Your task to perform on an android device: turn off improve location accuracy Image 0: 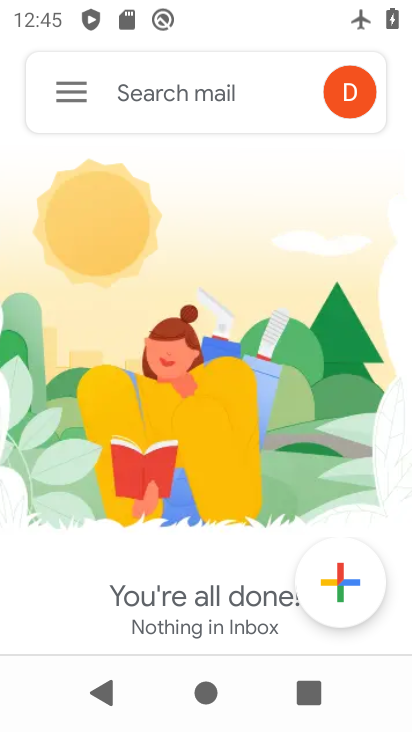
Step 0: press home button
Your task to perform on an android device: turn off improve location accuracy Image 1: 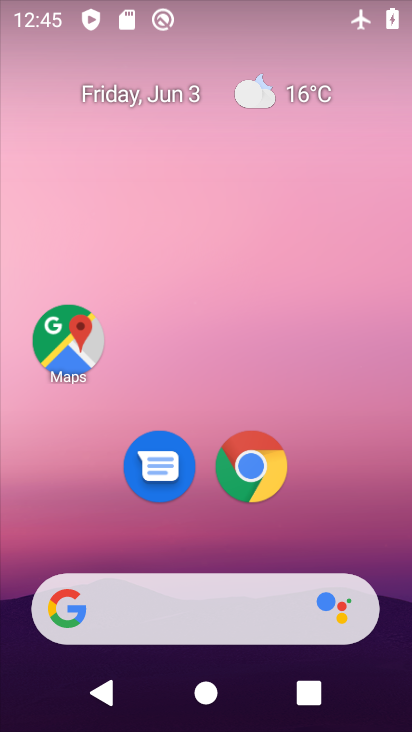
Step 1: drag from (273, 576) to (270, 255)
Your task to perform on an android device: turn off improve location accuracy Image 2: 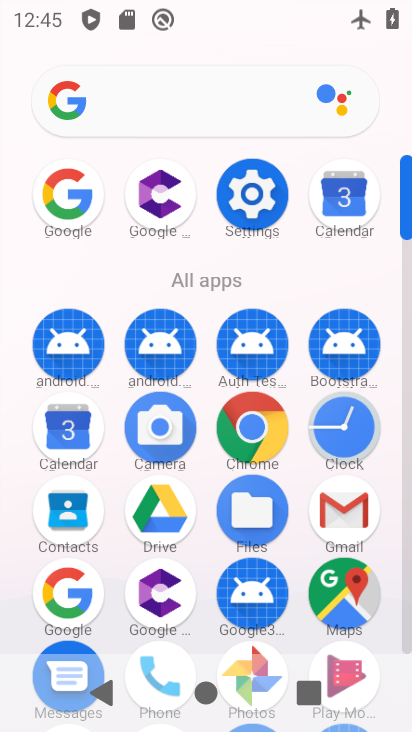
Step 2: click (255, 201)
Your task to perform on an android device: turn off improve location accuracy Image 3: 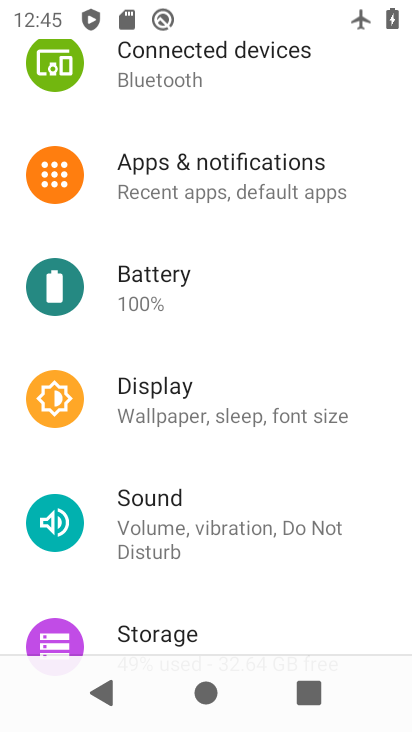
Step 3: drag from (147, 630) to (136, 284)
Your task to perform on an android device: turn off improve location accuracy Image 4: 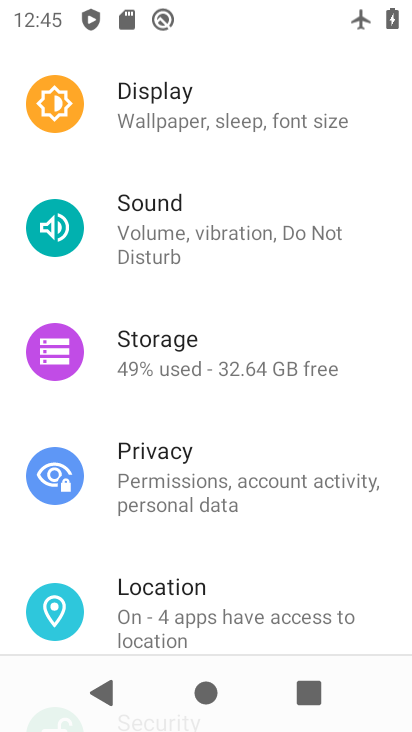
Step 4: click (140, 609)
Your task to perform on an android device: turn off improve location accuracy Image 5: 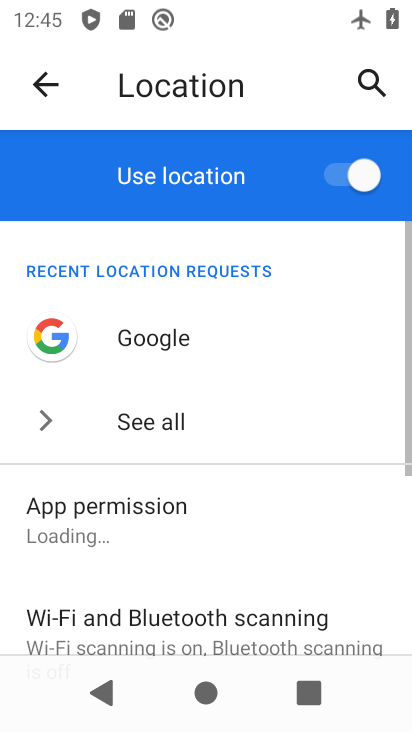
Step 5: drag from (170, 643) to (159, 223)
Your task to perform on an android device: turn off improve location accuracy Image 6: 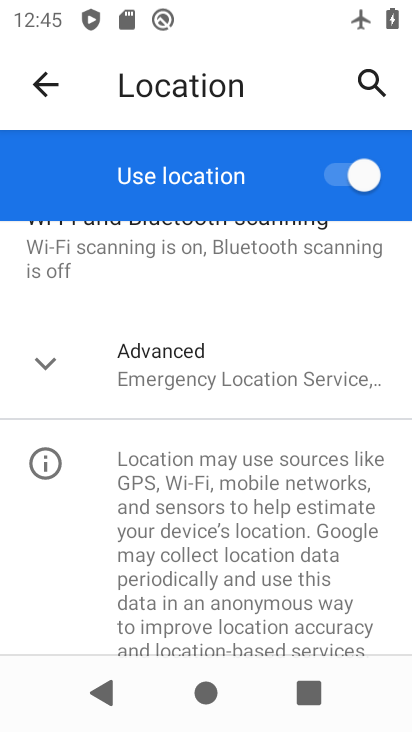
Step 6: click (204, 358)
Your task to perform on an android device: turn off improve location accuracy Image 7: 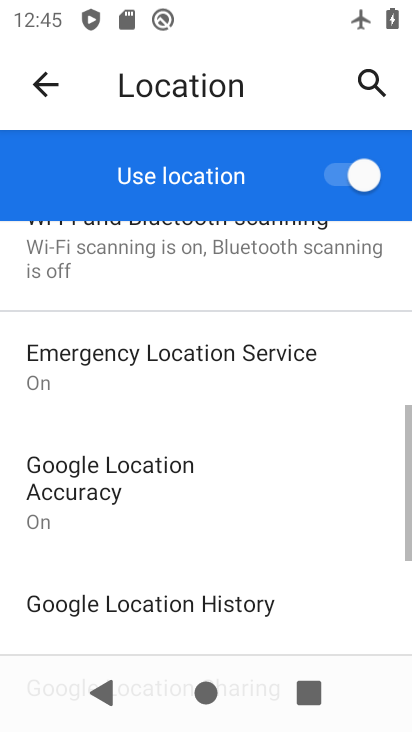
Step 7: drag from (195, 614) to (151, 344)
Your task to perform on an android device: turn off improve location accuracy Image 8: 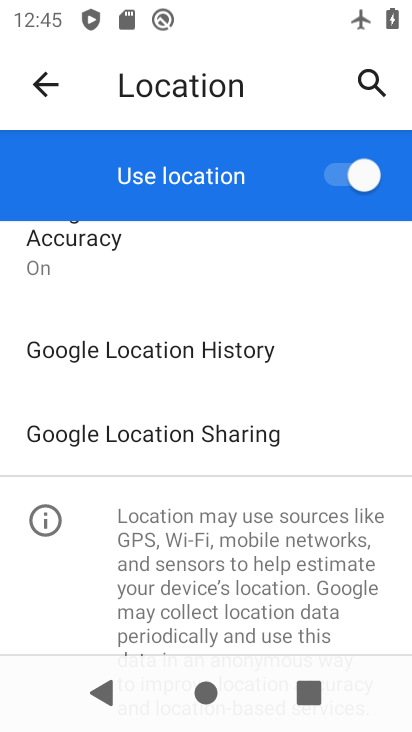
Step 8: click (83, 254)
Your task to perform on an android device: turn off improve location accuracy Image 9: 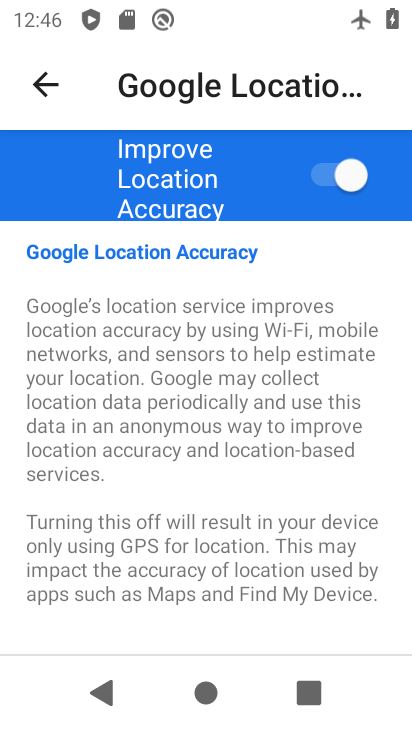
Step 9: click (335, 169)
Your task to perform on an android device: turn off improve location accuracy Image 10: 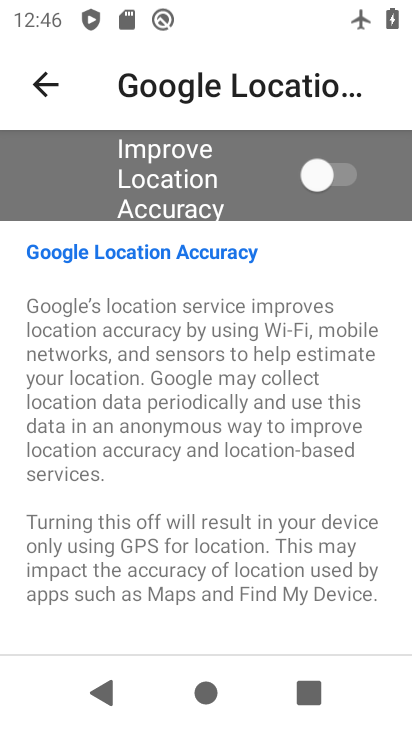
Step 10: task complete